Your task to perform on an android device: Go to ESPN.com Image 0: 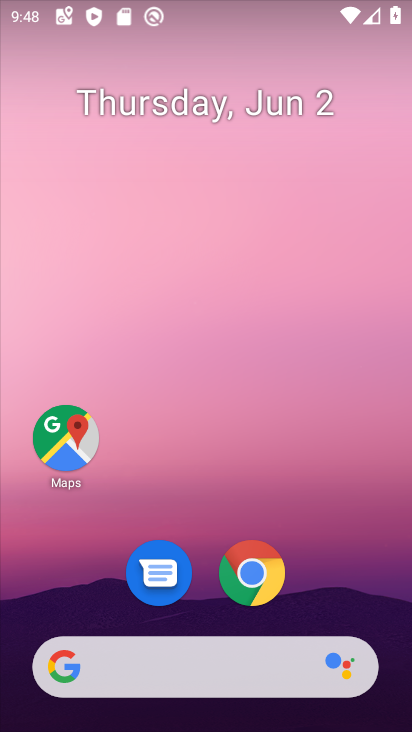
Step 0: click (258, 574)
Your task to perform on an android device: Go to ESPN.com Image 1: 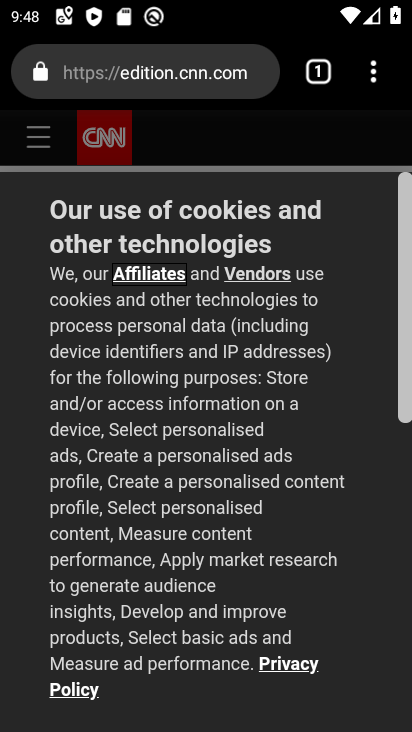
Step 1: click (320, 65)
Your task to perform on an android device: Go to ESPN.com Image 2: 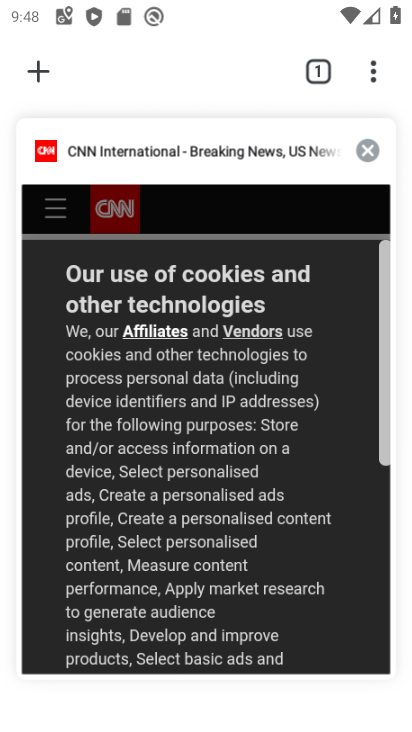
Step 2: click (35, 60)
Your task to perform on an android device: Go to ESPN.com Image 3: 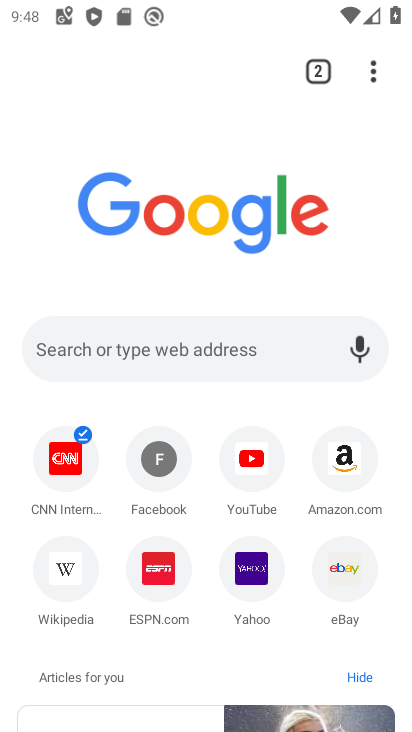
Step 3: click (160, 578)
Your task to perform on an android device: Go to ESPN.com Image 4: 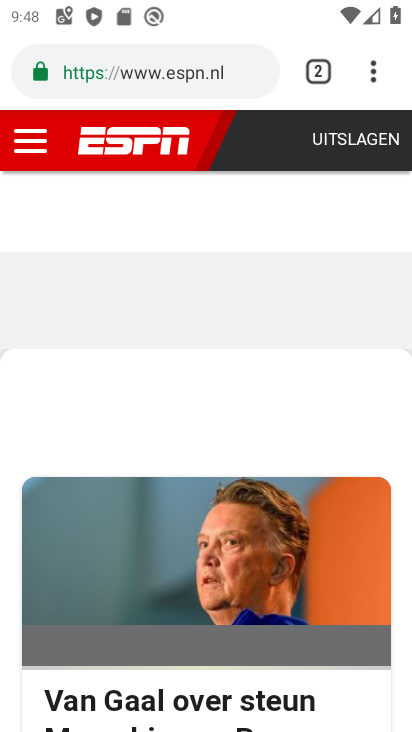
Step 4: task complete